Your task to perform on an android device: turn on translation in the chrome app Image 0: 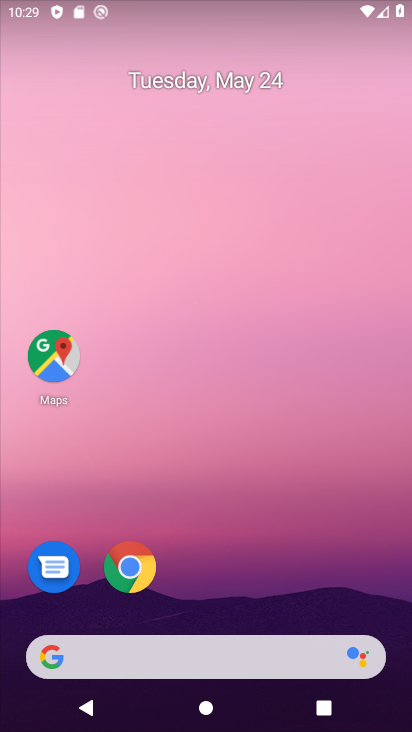
Step 0: click (127, 564)
Your task to perform on an android device: turn on translation in the chrome app Image 1: 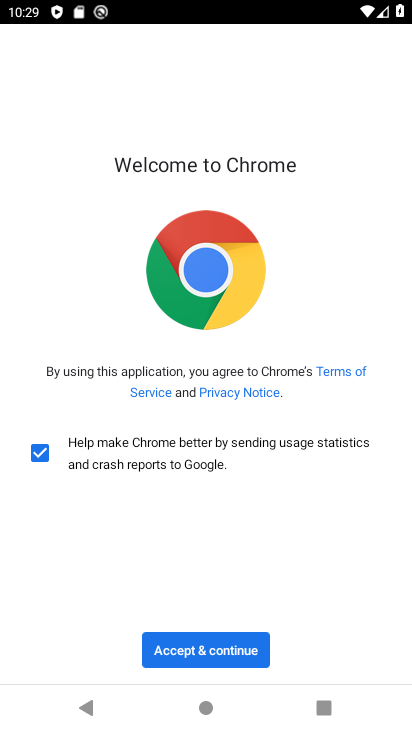
Step 1: click (206, 659)
Your task to perform on an android device: turn on translation in the chrome app Image 2: 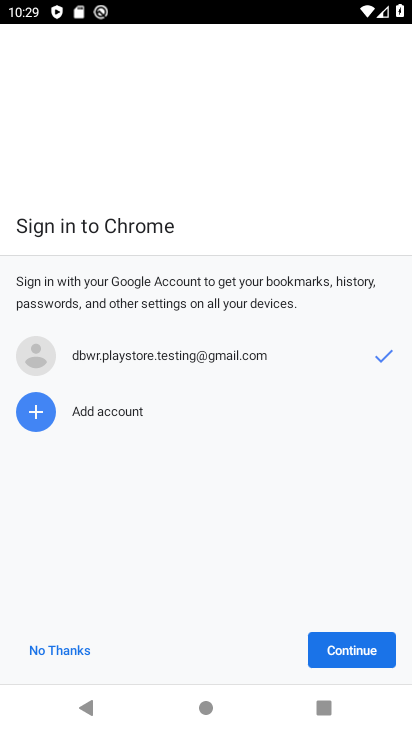
Step 2: click (347, 635)
Your task to perform on an android device: turn on translation in the chrome app Image 3: 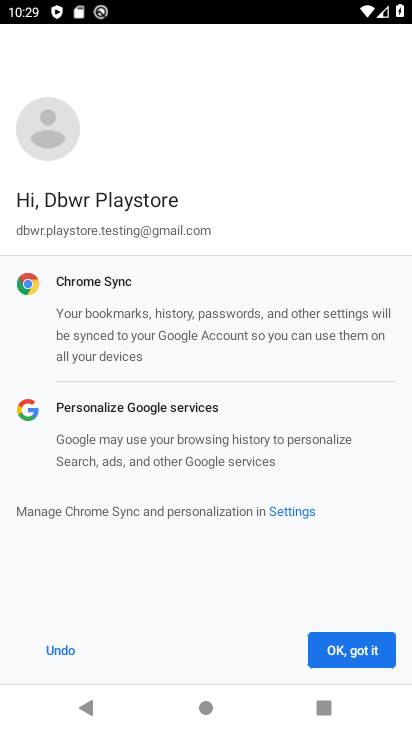
Step 3: click (347, 645)
Your task to perform on an android device: turn on translation in the chrome app Image 4: 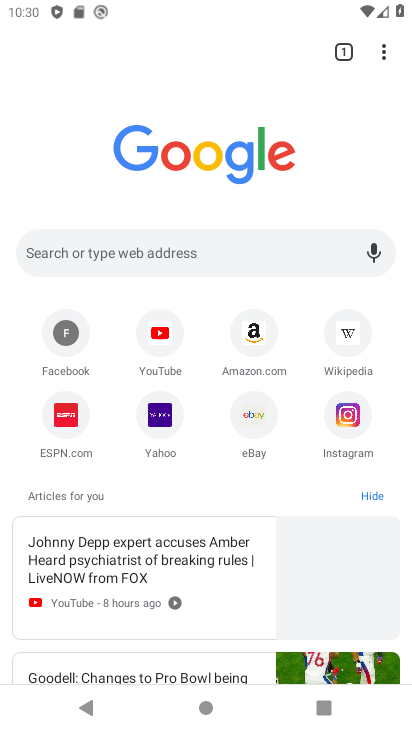
Step 4: click (379, 55)
Your task to perform on an android device: turn on translation in the chrome app Image 5: 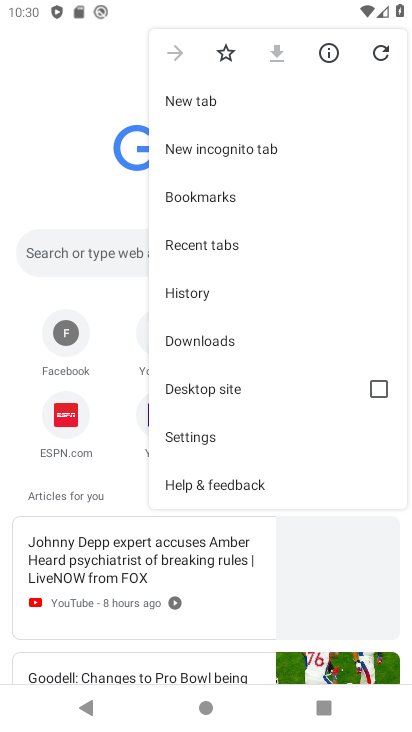
Step 5: click (185, 435)
Your task to perform on an android device: turn on translation in the chrome app Image 6: 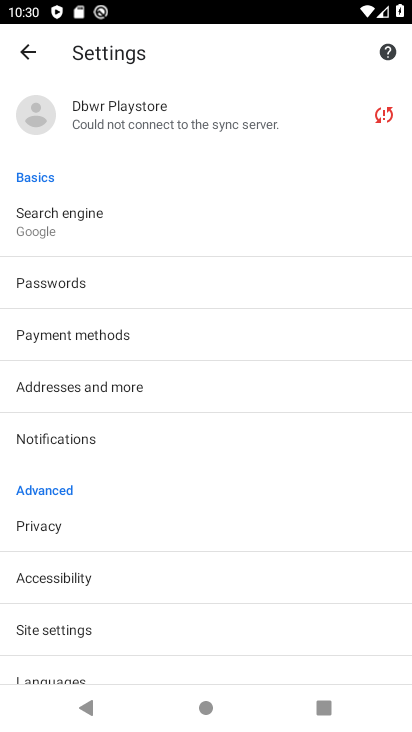
Step 6: click (66, 632)
Your task to perform on an android device: turn on translation in the chrome app Image 7: 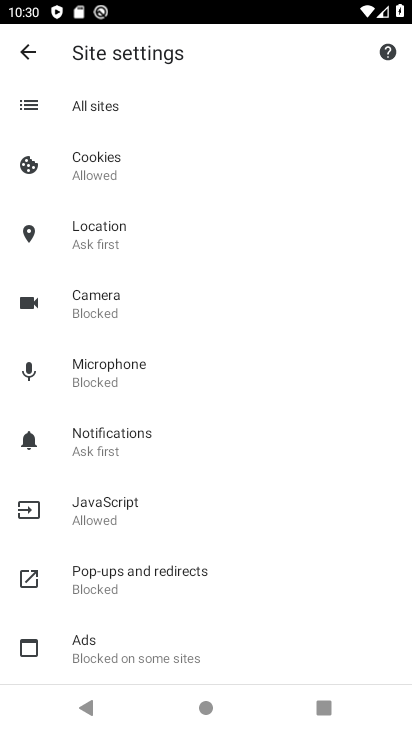
Step 7: drag from (264, 616) to (260, 381)
Your task to perform on an android device: turn on translation in the chrome app Image 8: 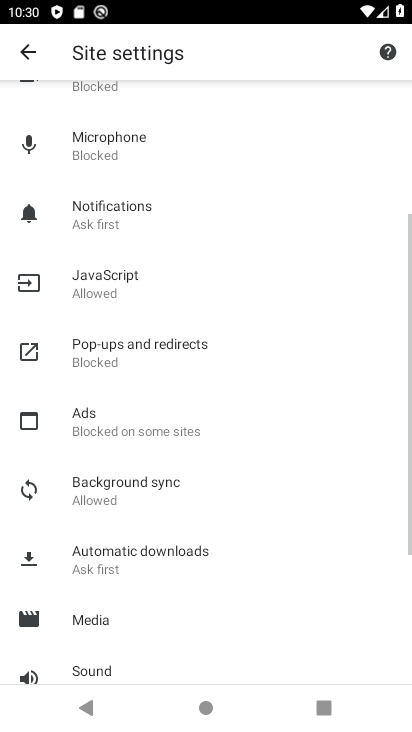
Step 8: drag from (265, 650) to (268, 428)
Your task to perform on an android device: turn on translation in the chrome app Image 9: 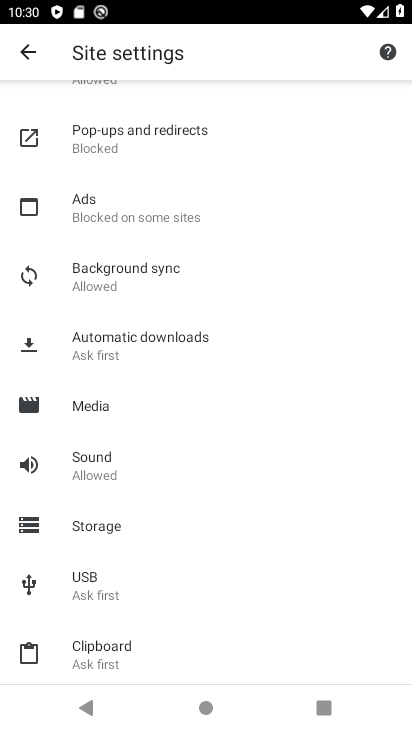
Step 9: drag from (280, 636) to (294, 432)
Your task to perform on an android device: turn on translation in the chrome app Image 10: 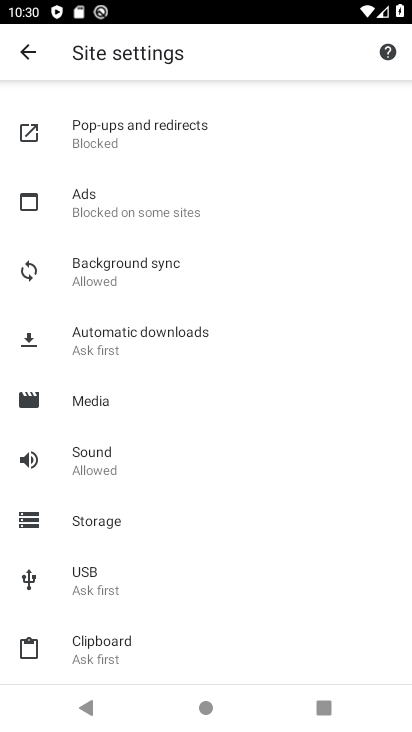
Step 10: click (29, 61)
Your task to perform on an android device: turn on translation in the chrome app Image 11: 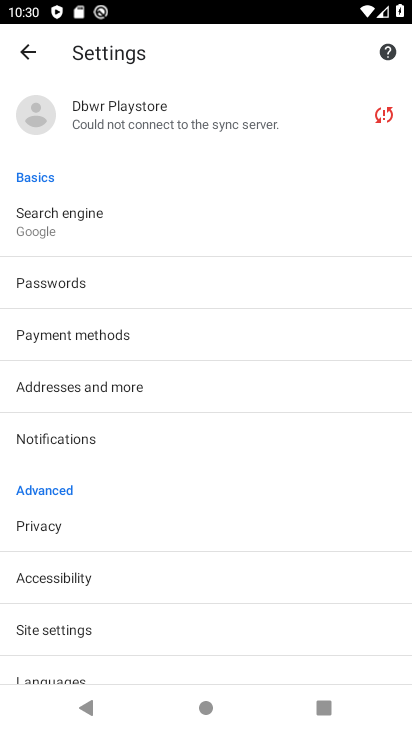
Step 11: drag from (198, 621) to (183, 358)
Your task to perform on an android device: turn on translation in the chrome app Image 12: 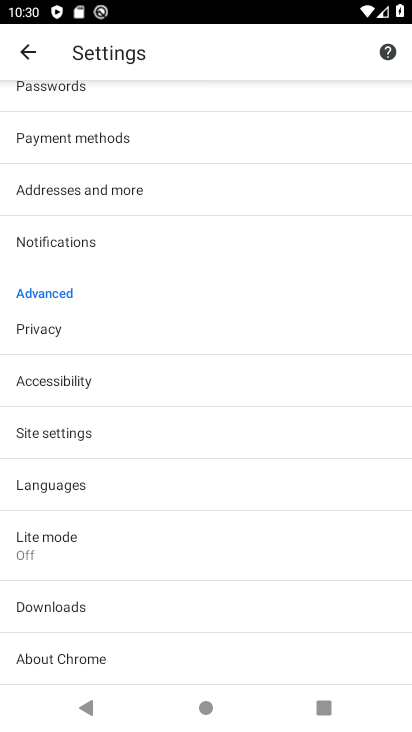
Step 12: click (66, 486)
Your task to perform on an android device: turn on translation in the chrome app Image 13: 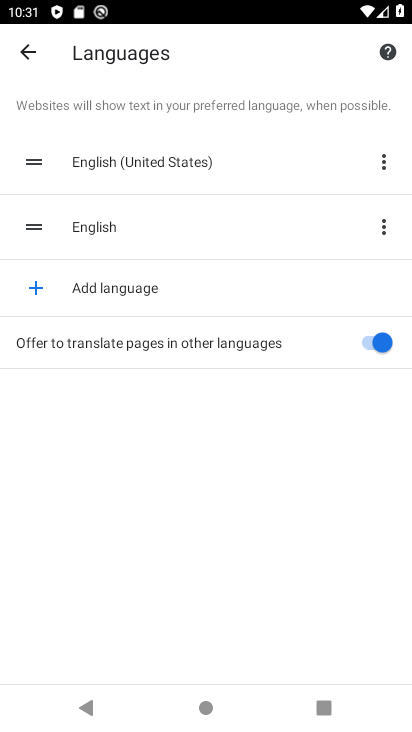
Step 13: task complete